Your task to perform on an android device: Open my contact list Image 0: 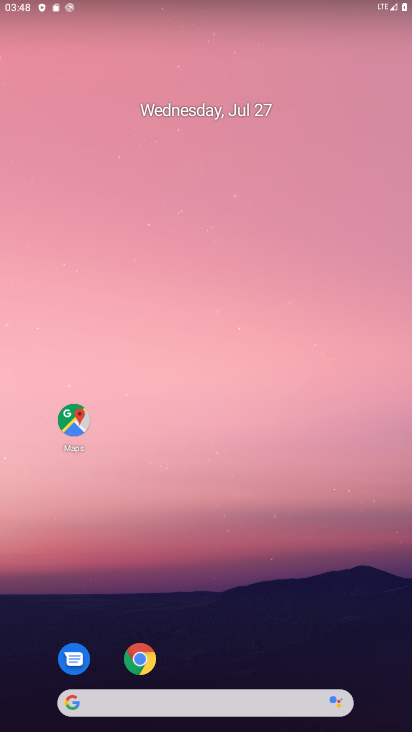
Step 0: drag from (240, 676) to (213, 60)
Your task to perform on an android device: Open my contact list Image 1: 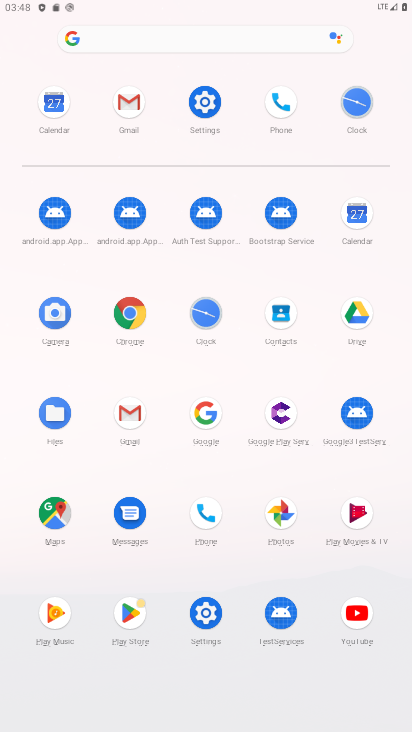
Step 1: click (277, 317)
Your task to perform on an android device: Open my contact list Image 2: 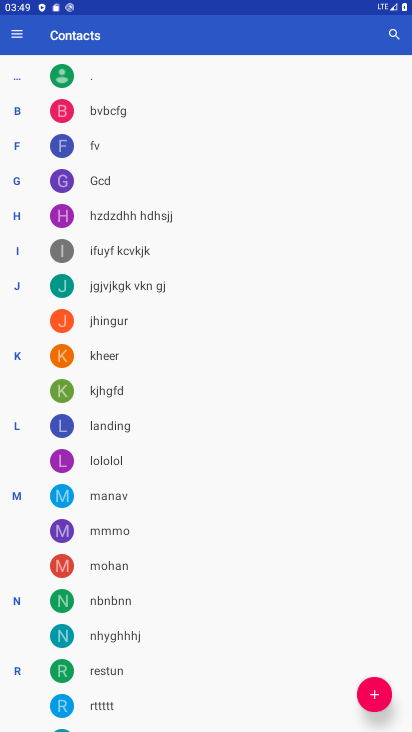
Step 2: task complete